Your task to perform on an android device: check google app version Image 0: 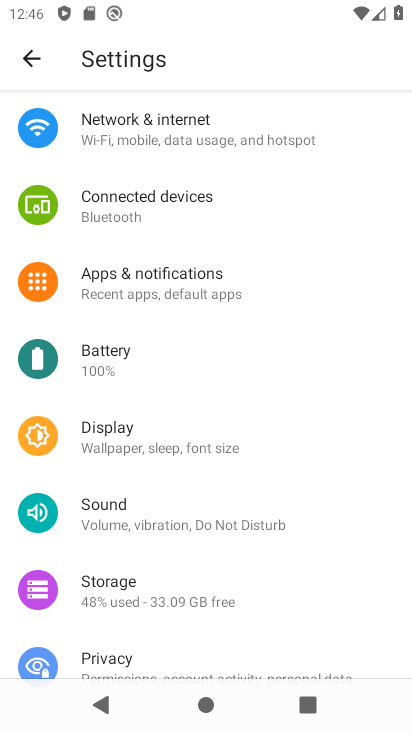
Step 0: click (178, 287)
Your task to perform on an android device: check google app version Image 1: 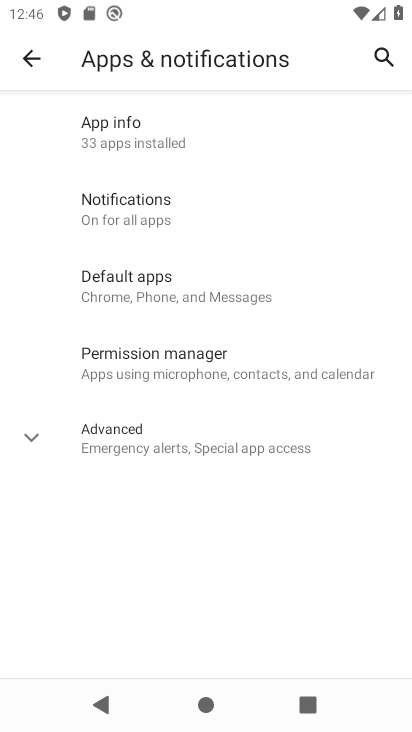
Step 1: click (190, 146)
Your task to perform on an android device: check google app version Image 2: 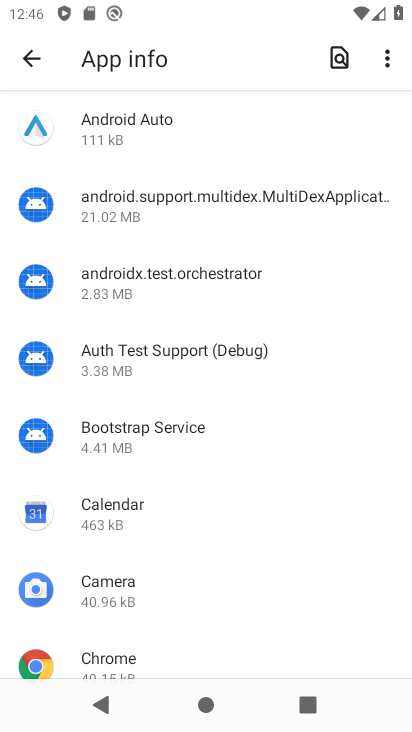
Step 2: drag from (210, 546) to (310, 232)
Your task to perform on an android device: check google app version Image 3: 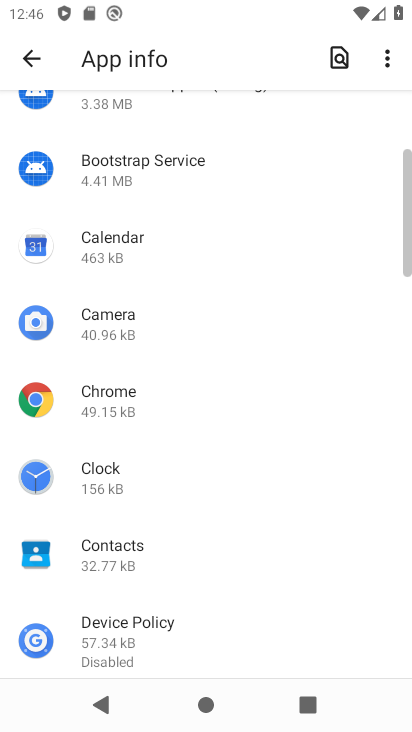
Step 3: drag from (205, 567) to (277, 222)
Your task to perform on an android device: check google app version Image 4: 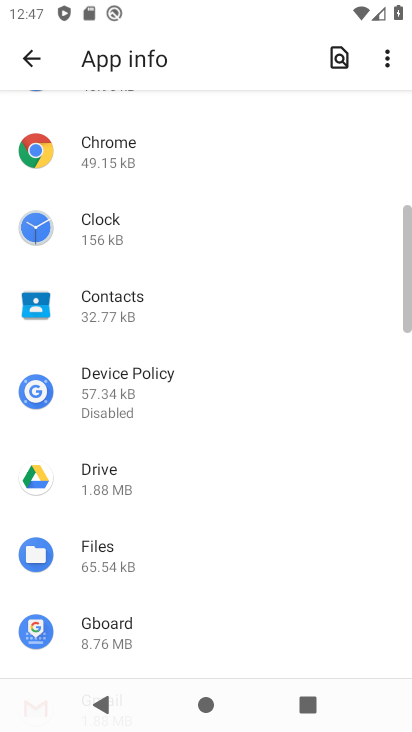
Step 4: drag from (164, 620) to (243, 316)
Your task to perform on an android device: check google app version Image 5: 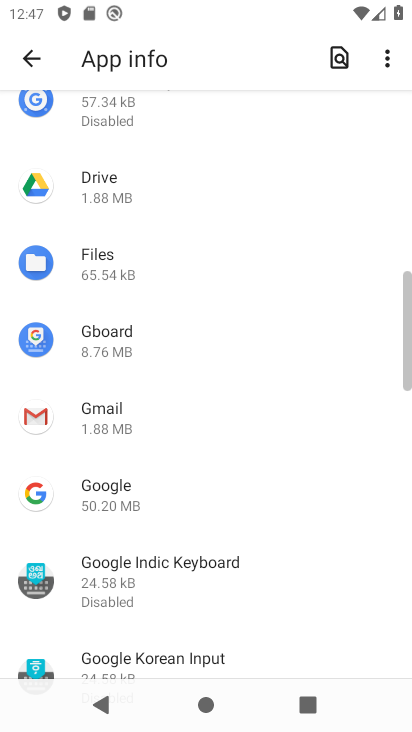
Step 5: click (145, 501)
Your task to perform on an android device: check google app version Image 6: 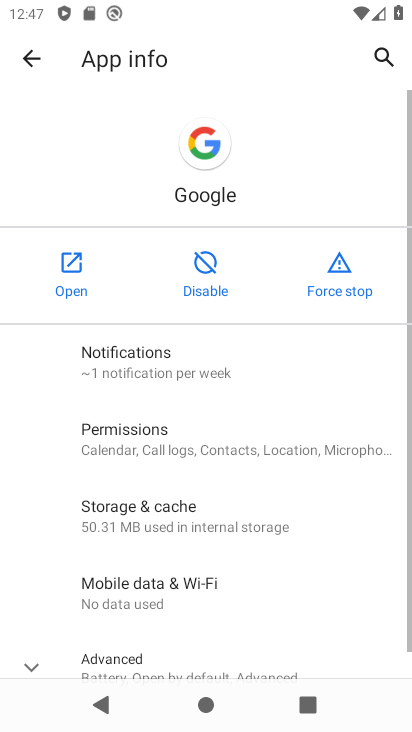
Step 6: drag from (78, 654) to (225, 299)
Your task to perform on an android device: check google app version Image 7: 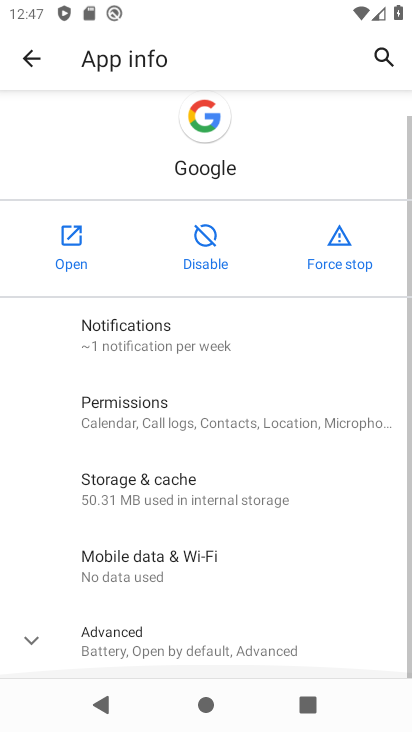
Step 7: click (161, 639)
Your task to perform on an android device: check google app version Image 8: 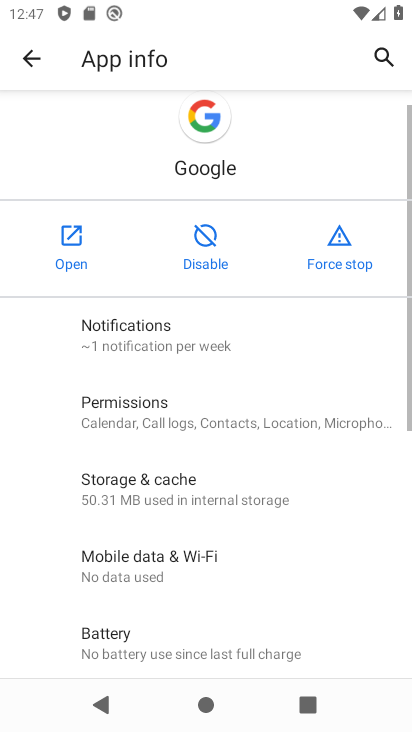
Step 8: task complete